Your task to perform on an android device: Open privacy settings Image 0: 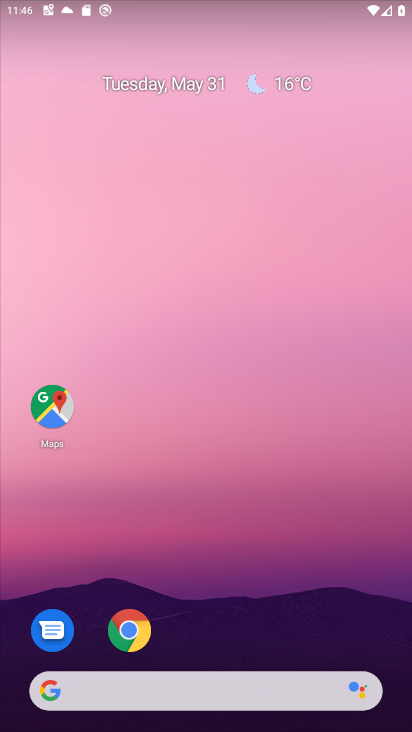
Step 0: drag from (267, 606) to (324, 104)
Your task to perform on an android device: Open privacy settings Image 1: 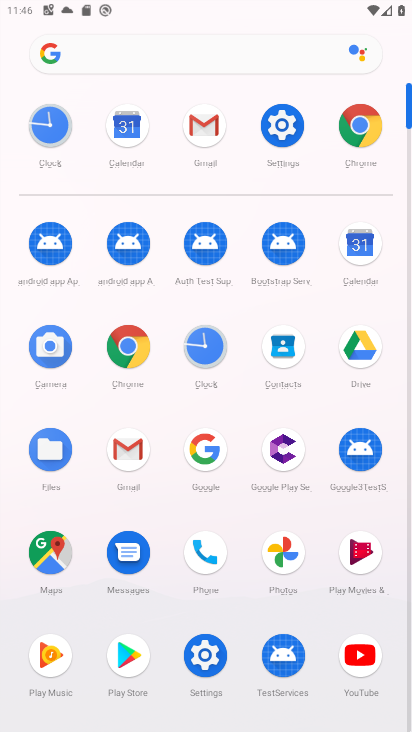
Step 1: click (281, 117)
Your task to perform on an android device: Open privacy settings Image 2: 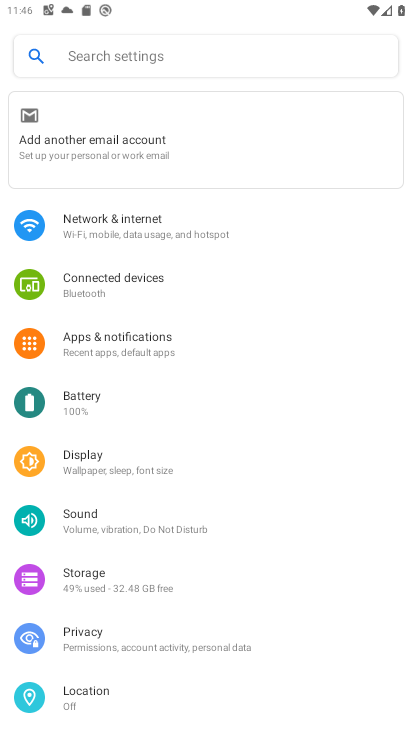
Step 2: drag from (224, 513) to (213, 175)
Your task to perform on an android device: Open privacy settings Image 3: 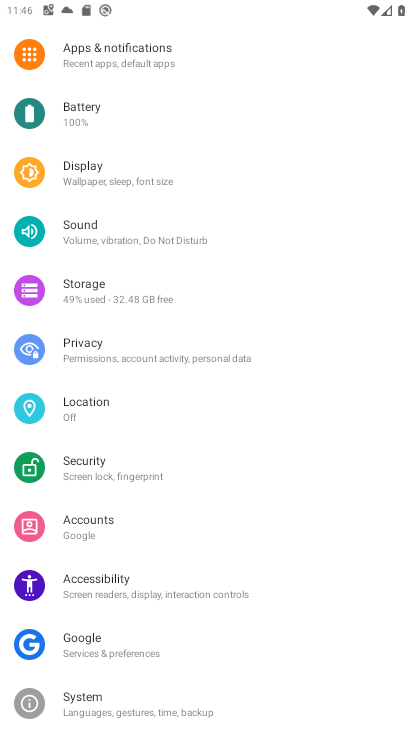
Step 3: click (66, 364)
Your task to perform on an android device: Open privacy settings Image 4: 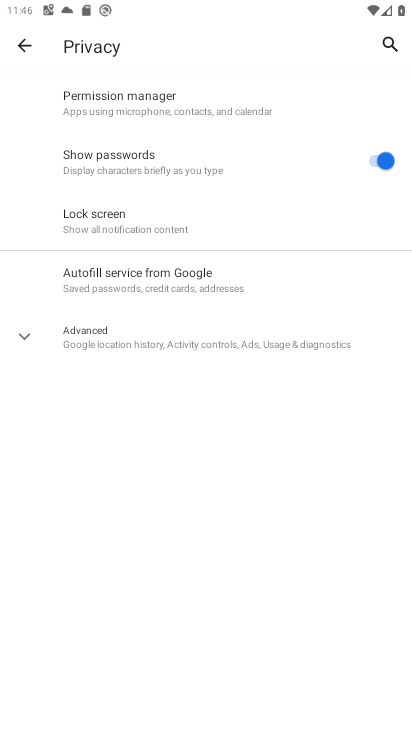
Step 4: task complete